Your task to perform on an android device: Open privacy settings Image 0: 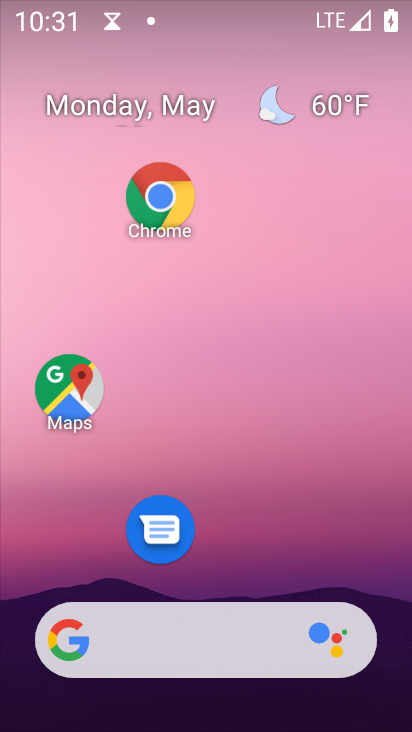
Step 0: drag from (216, 336) to (176, 100)
Your task to perform on an android device: Open privacy settings Image 1: 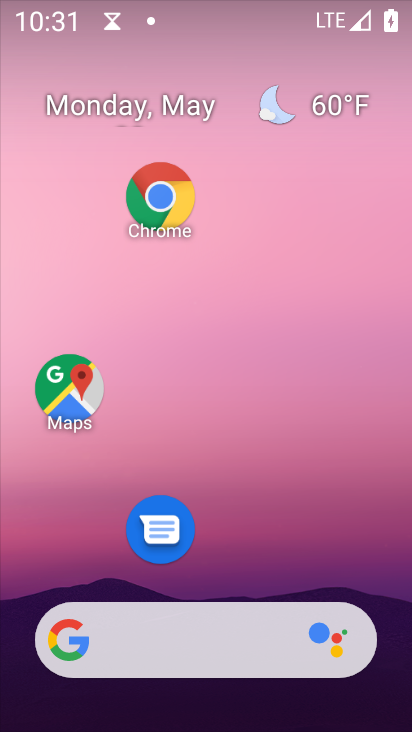
Step 1: drag from (222, 242) to (225, 3)
Your task to perform on an android device: Open privacy settings Image 2: 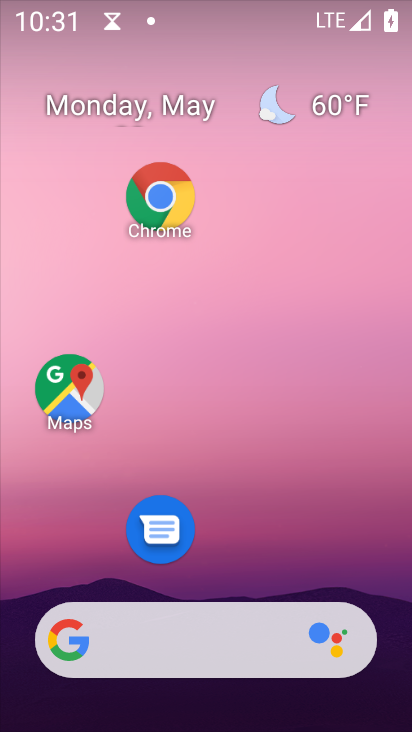
Step 2: drag from (208, 579) to (202, 62)
Your task to perform on an android device: Open privacy settings Image 3: 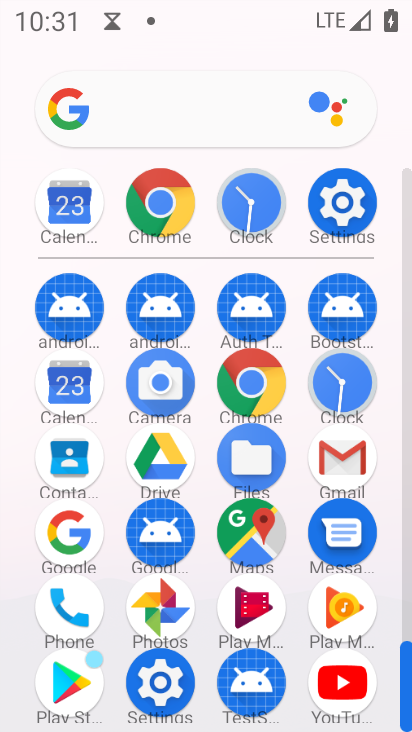
Step 3: click (341, 202)
Your task to perform on an android device: Open privacy settings Image 4: 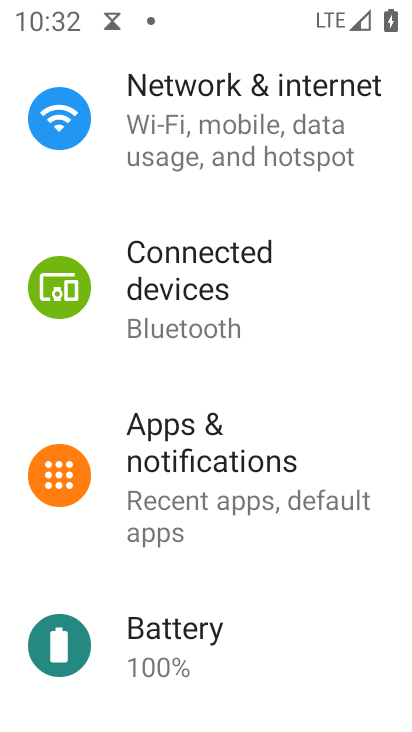
Step 4: drag from (174, 639) to (180, 246)
Your task to perform on an android device: Open privacy settings Image 5: 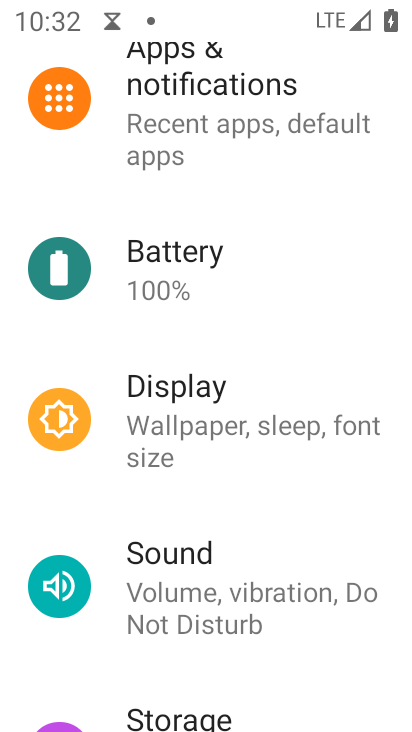
Step 5: drag from (181, 689) to (184, 219)
Your task to perform on an android device: Open privacy settings Image 6: 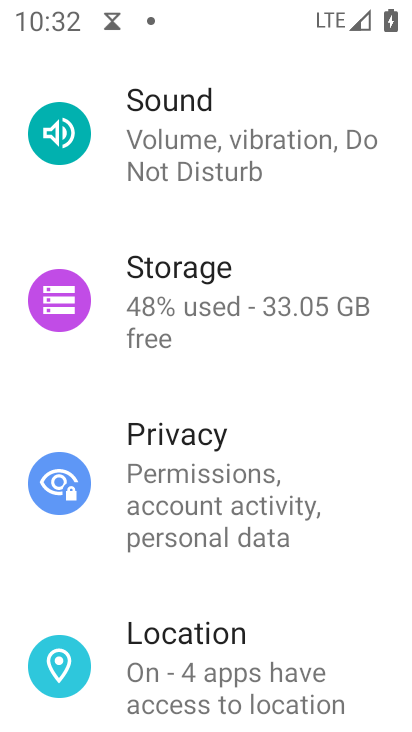
Step 6: click (159, 516)
Your task to perform on an android device: Open privacy settings Image 7: 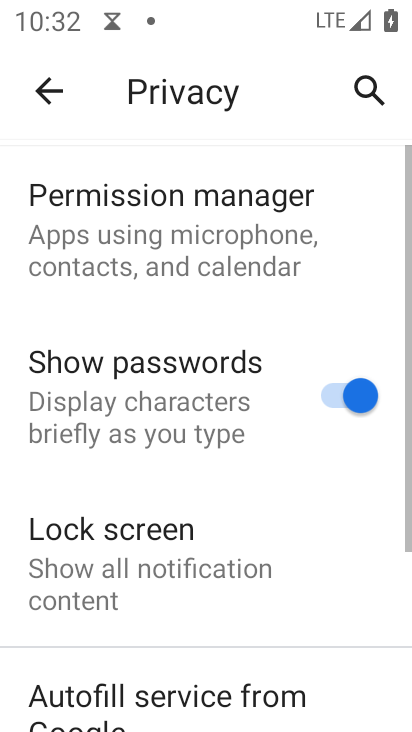
Step 7: task complete